Your task to perform on an android device: Open calendar and show me the second week of next month Image 0: 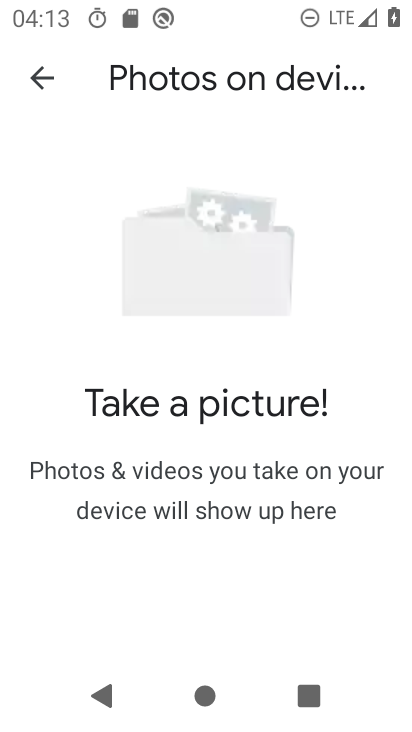
Step 0: press back button
Your task to perform on an android device: Open calendar and show me the second week of next month Image 1: 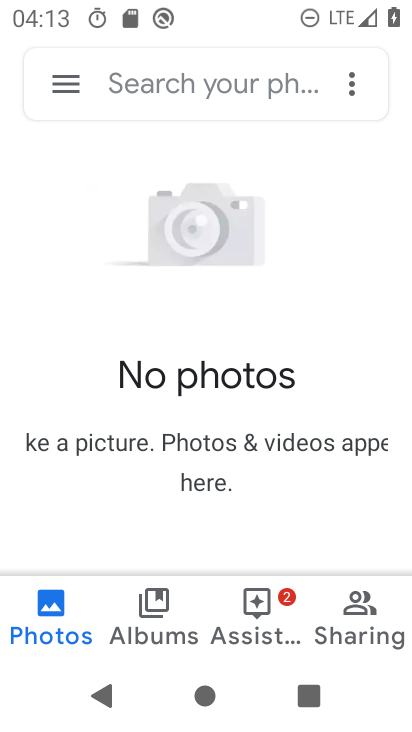
Step 1: press back button
Your task to perform on an android device: Open calendar and show me the second week of next month Image 2: 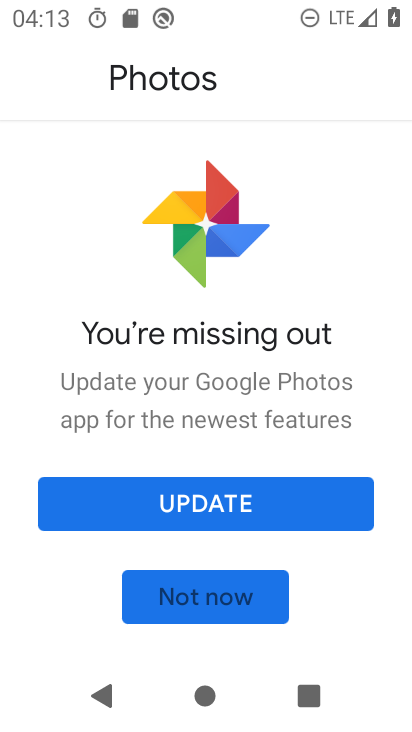
Step 2: press back button
Your task to perform on an android device: Open calendar and show me the second week of next month Image 3: 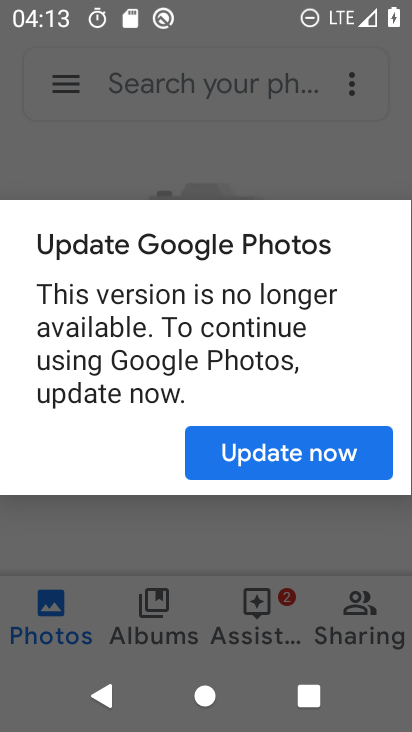
Step 3: press home button
Your task to perform on an android device: Open calendar and show me the second week of next month Image 4: 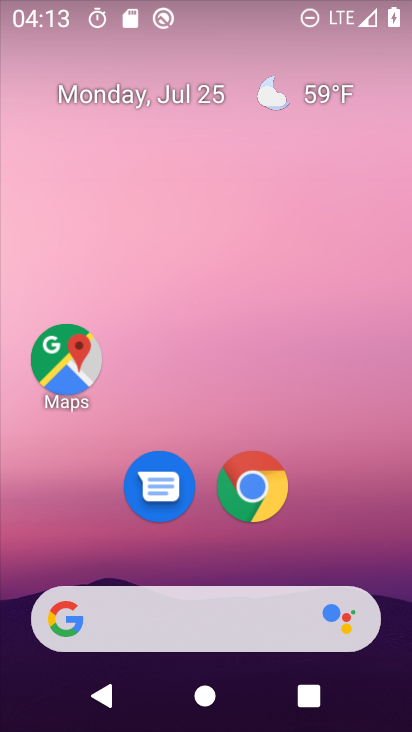
Step 4: drag from (106, 463) to (197, 51)
Your task to perform on an android device: Open calendar and show me the second week of next month Image 5: 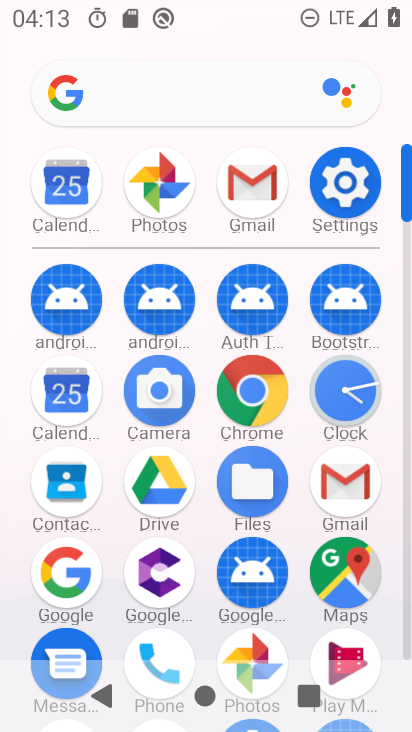
Step 5: click (60, 176)
Your task to perform on an android device: Open calendar and show me the second week of next month Image 6: 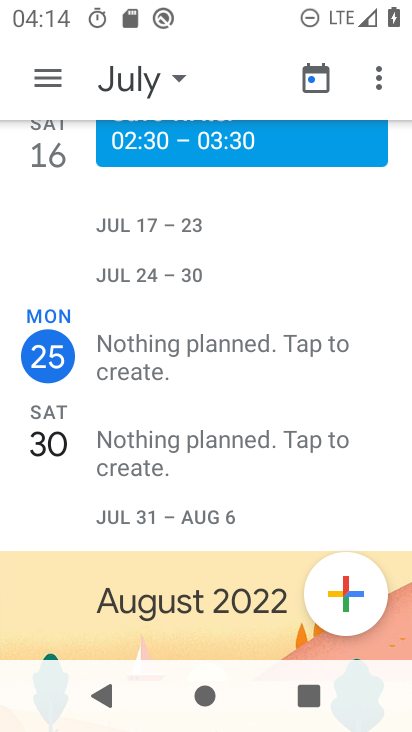
Step 6: click (166, 78)
Your task to perform on an android device: Open calendar and show me the second week of next month Image 7: 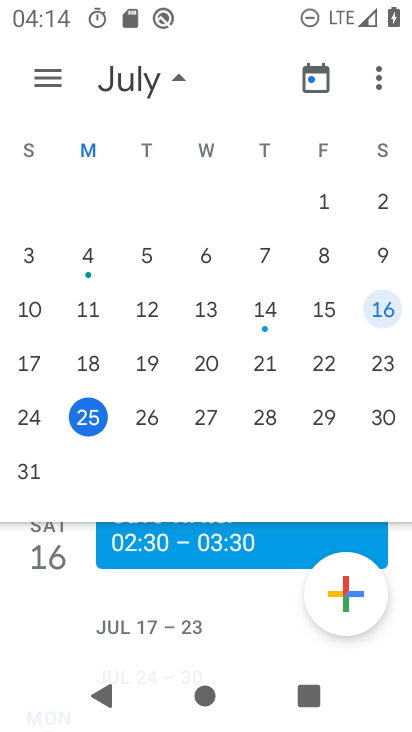
Step 7: drag from (377, 335) to (1, 299)
Your task to perform on an android device: Open calendar and show me the second week of next month Image 8: 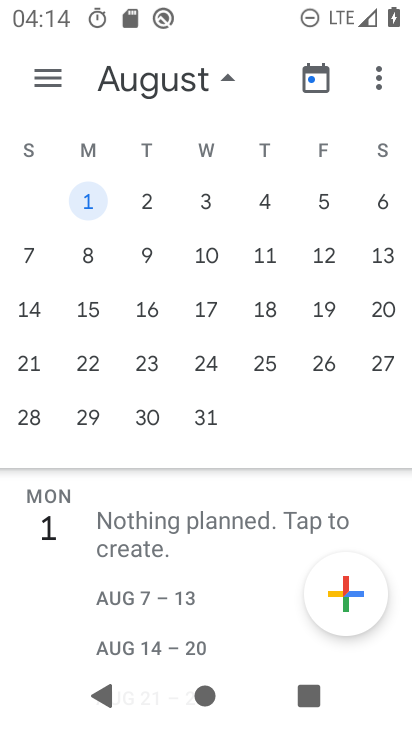
Step 8: click (85, 261)
Your task to perform on an android device: Open calendar and show me the second week of next month Image 9: 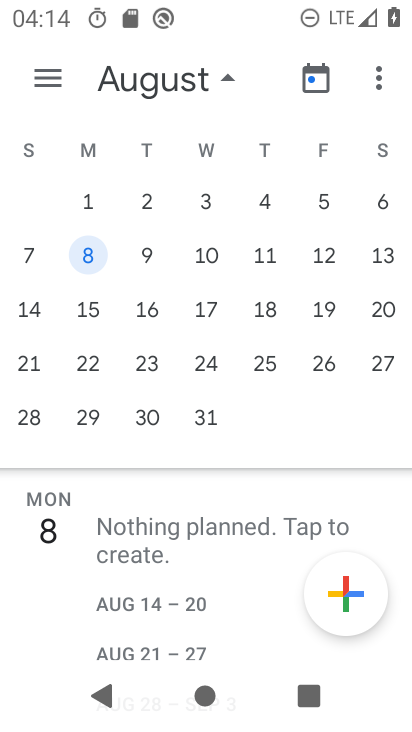
Step 9: task complete